Your task to perform on an android device: Open privacy settings Image 0: 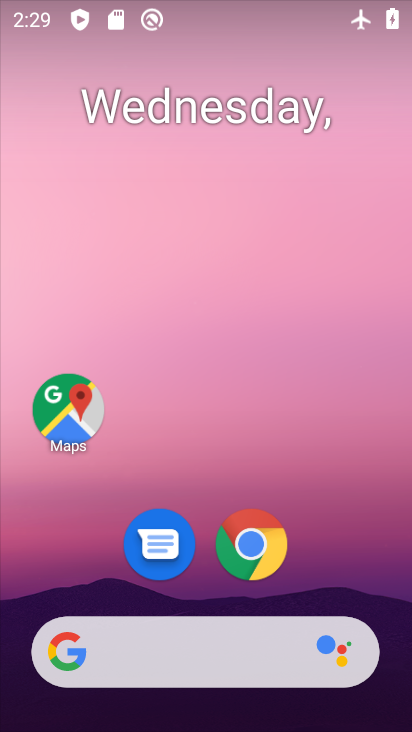
Step 0: click (267, 565)
Your task to perform on an android device: Open privacy settings Image 1: 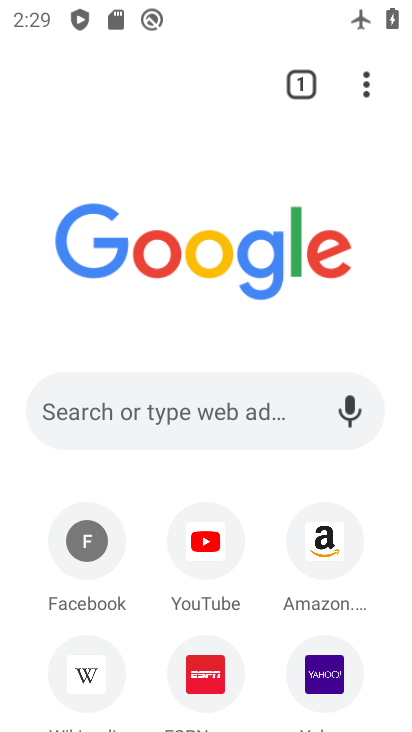
Step 1: drag from (377, 88) to (218, 593)
Your task to perform on an android device: Open privacy settings Image 2: 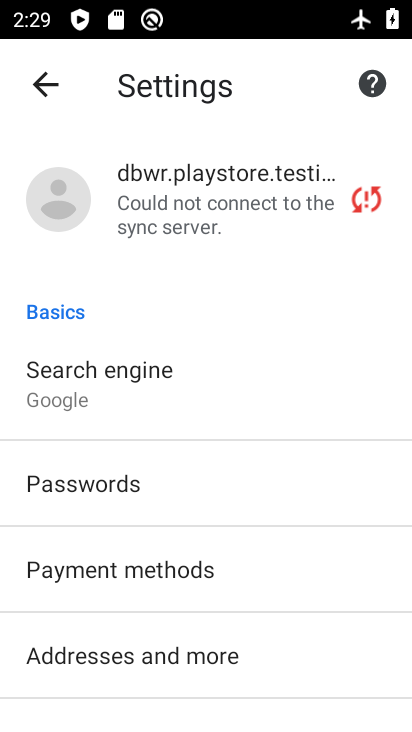
Step 2: drag from (176, 684) to (235, 389)
Your task to perform on an android device: Open privacy settings Image 3: 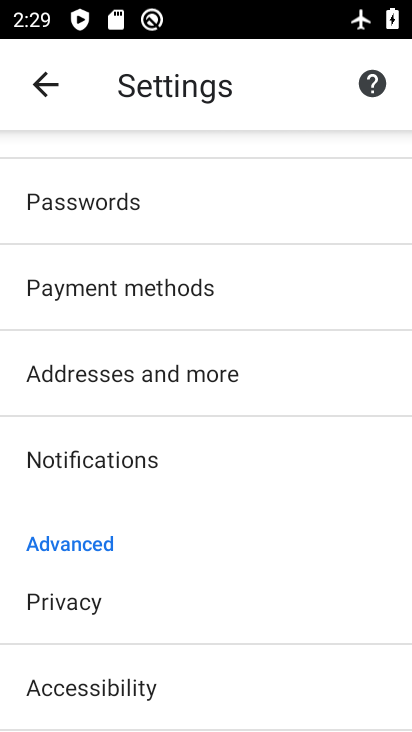
Step 3: click (144, 603)
Your task to perform on an android device: Open privacy settings Image 4: 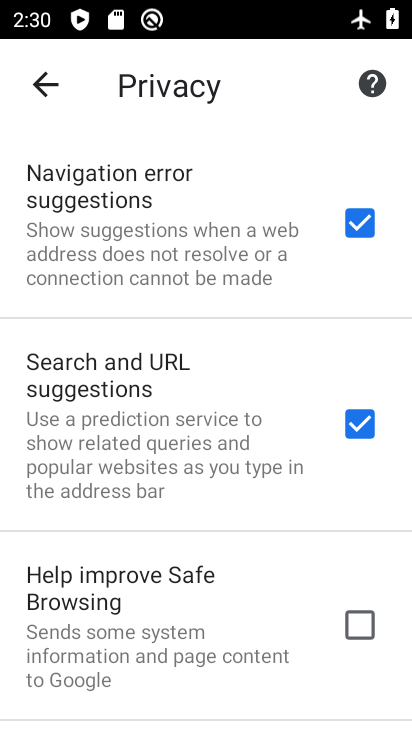
Step 4: task complete